Your task to perform on an android device: clear all cookies in the chrome app Image 0: 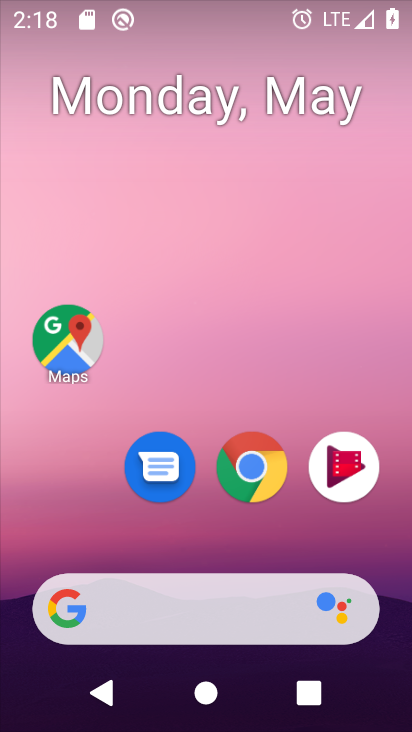
Step 0: drag from (210, 525) to (224, 209)
Your task to perform on an android device: clear all cookies in the chrome app Image 1: 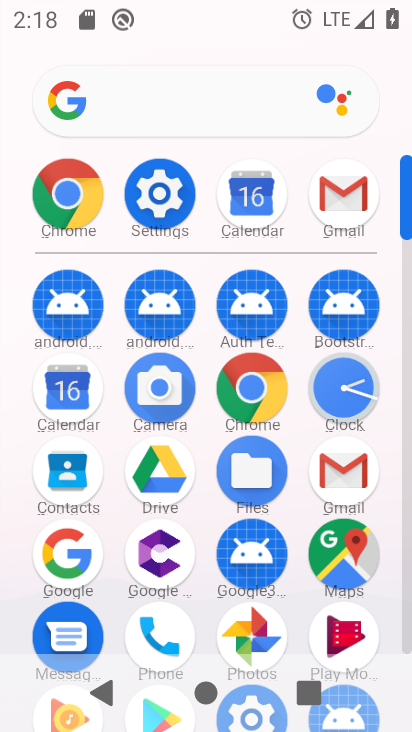
Step 1: click (243, 394)
Your task to perform on an android device: clear all cookies in the chrome app Image 2: 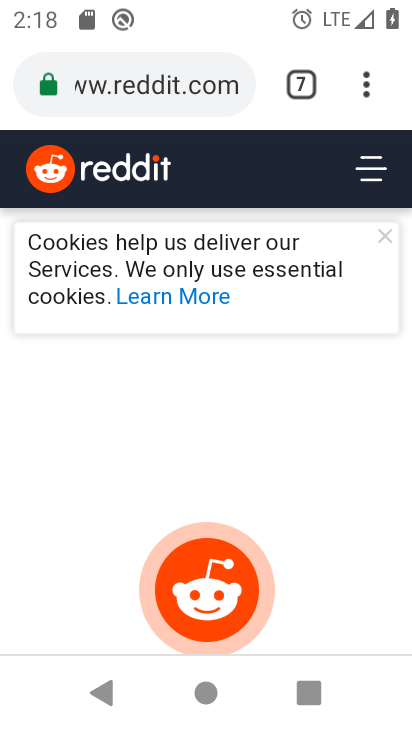
Step 2: click (353, 76)
Your task to perform on an android device: clear all cookies in the chrome app Image 3: 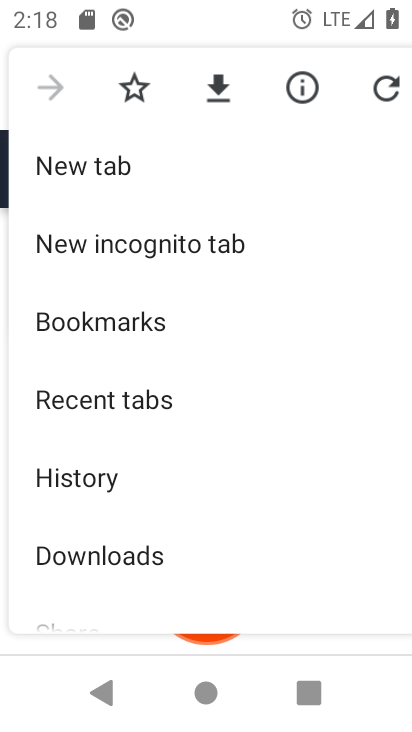
Step 3: drag from (177, 584) to (298, 188)
Your task to perform on an android device: clear all cookies in the chrome app Image 4: 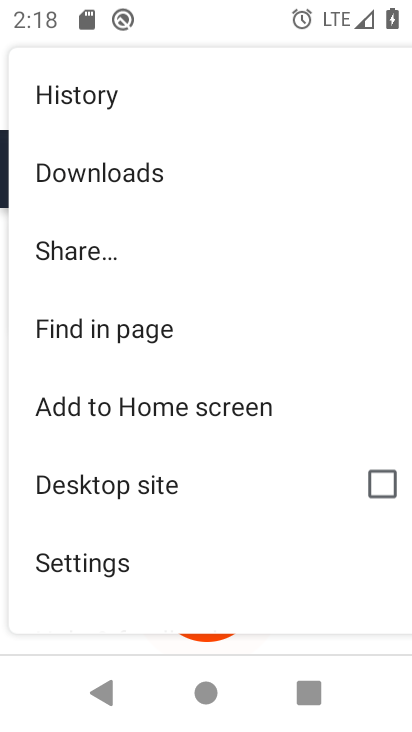
Step 4: click (145, 568)
Your task to perform on an android device: clear all cookies in the chrome app Image 5: 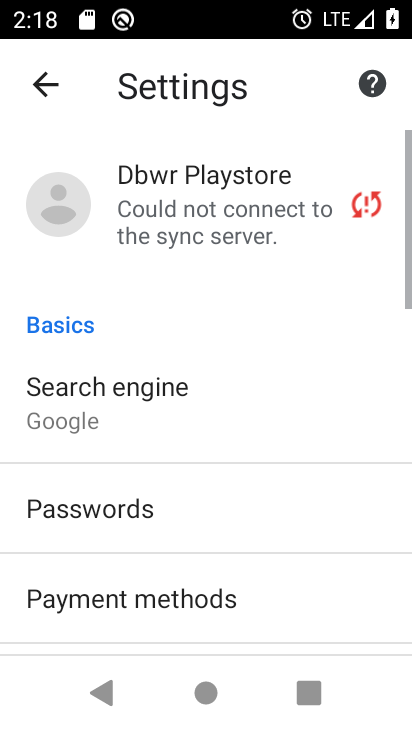
Step 5: drag from (223, 521) to (369, 140)
Your task to perform on an android device: clear all cookies in the chrome app Image 6: 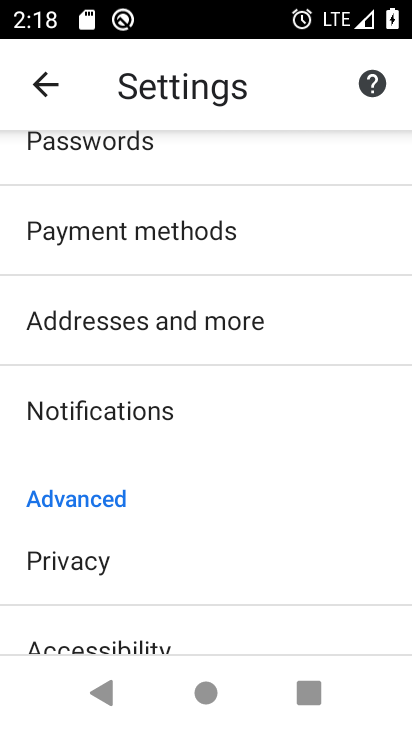
Step 6: click (168, 548)
Your task to perform on an android device: clear all cookies in the chrome app Image 7: 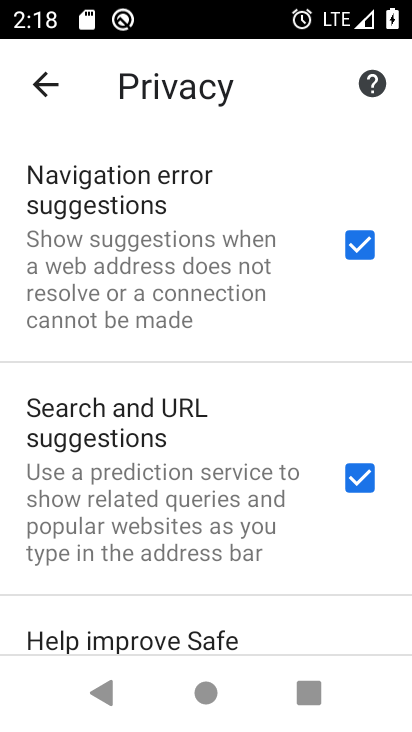
Step 7: drag from (126, 581) to (268, 104)
Your task to perform on an android device: clear all cookies in the chrome app Image 8: 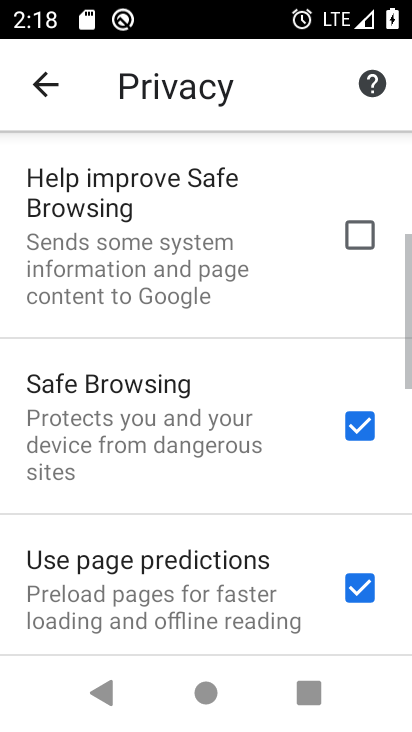
Step 8: drag from (150, 561) to (261, 142)
Your task to perform on an android device: clear all cookies in the chrome app Image 9: 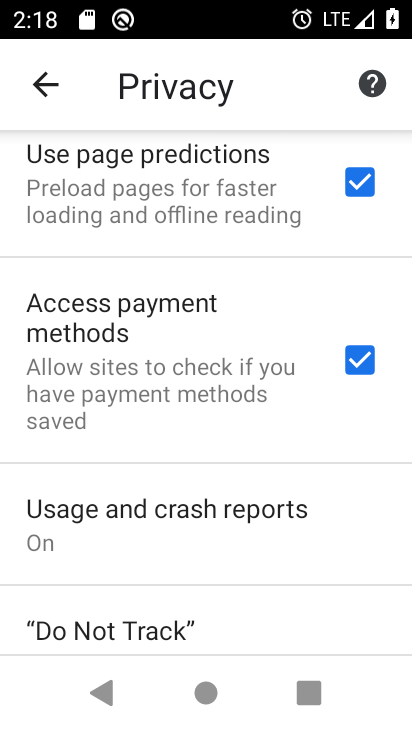
Step 9: drag from (179, 525) to (291, 147)
Your task to perform on an android device: clear all cookies in the chrome app Image 10: 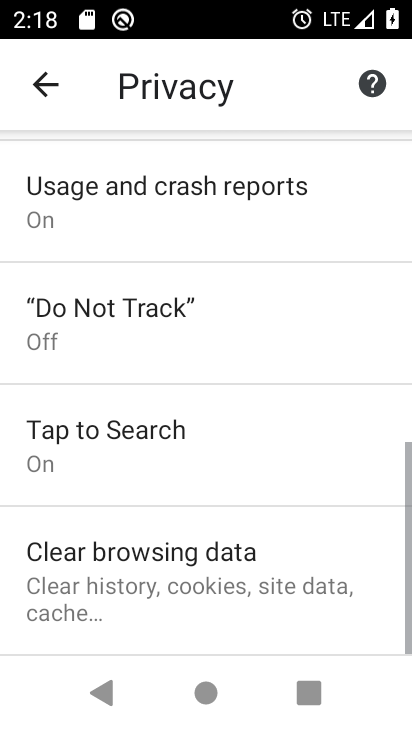
Step 10: click (149, 566)
Your task to perform on an android device: clear all cookies in the chrome app Image 11: 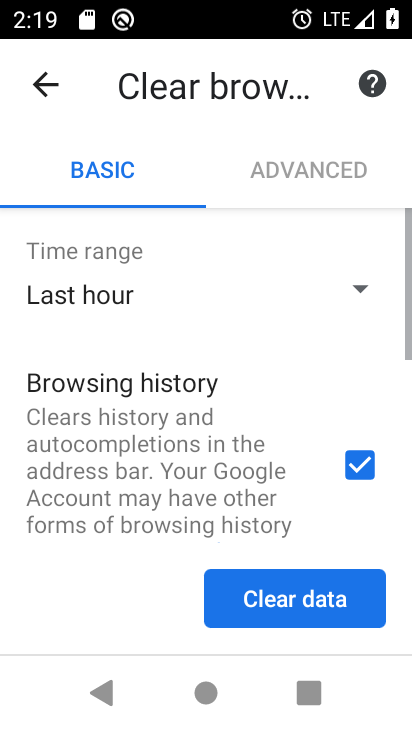
Step 11: click (310, 630)
Your task to perform on an android device: clear all cookies in the chrome app Image 12: 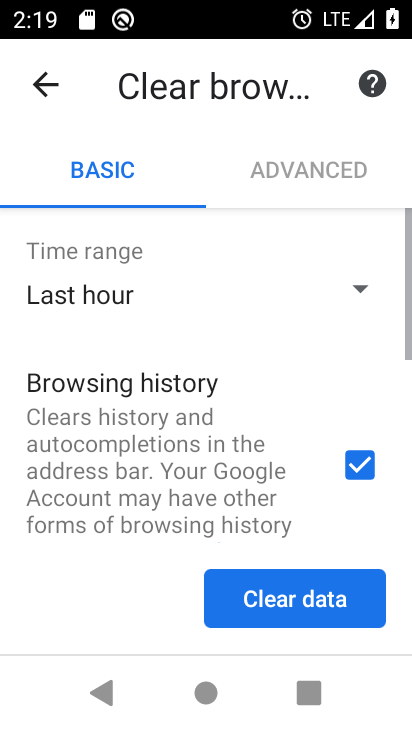
Step 12: click (312, 588)
Your task to perform on an android device: clear all cookies in the chrome app Image 13: 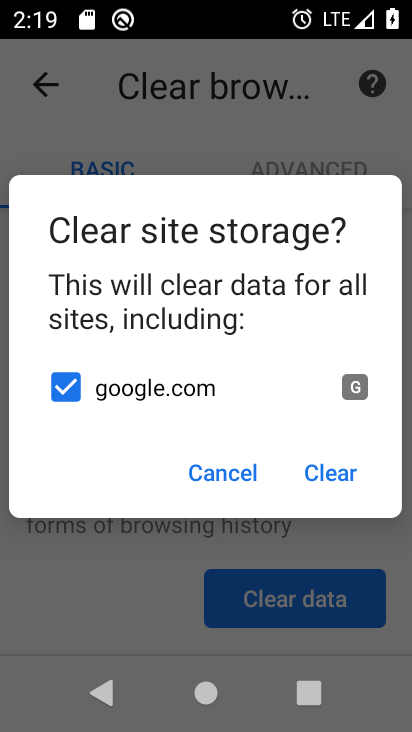
Step 13: click (322, 458)
Your task to perform on an android device: clear all cookies in the chrome app Image 14: 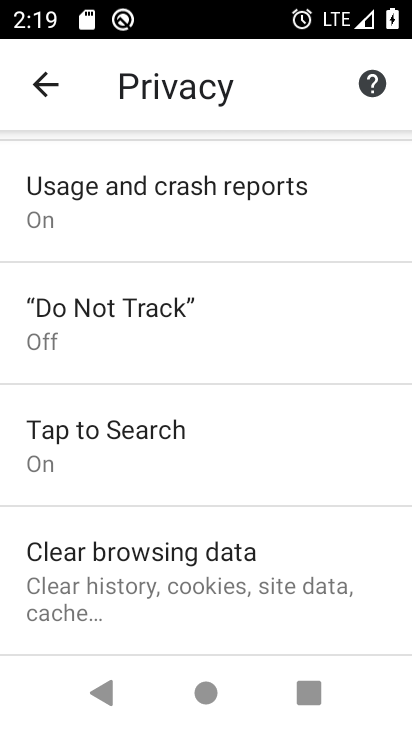
Step 14: task complete